Your task to perform on an android device: toggle improve location accuracy Image 0: 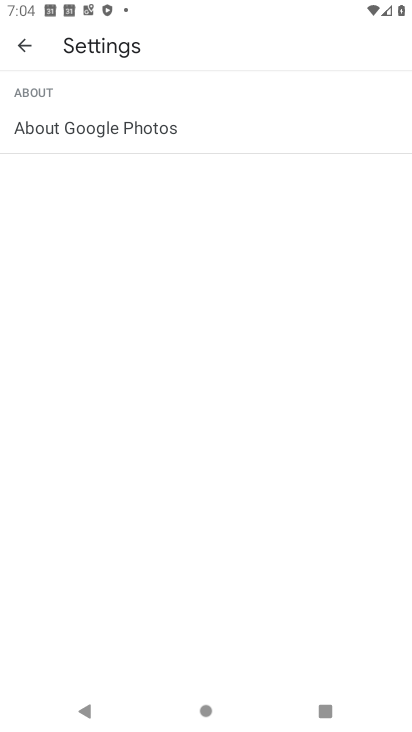
Step 0: press home button
Your task to perform on an android device: toggle improve location accuracy Image 1: 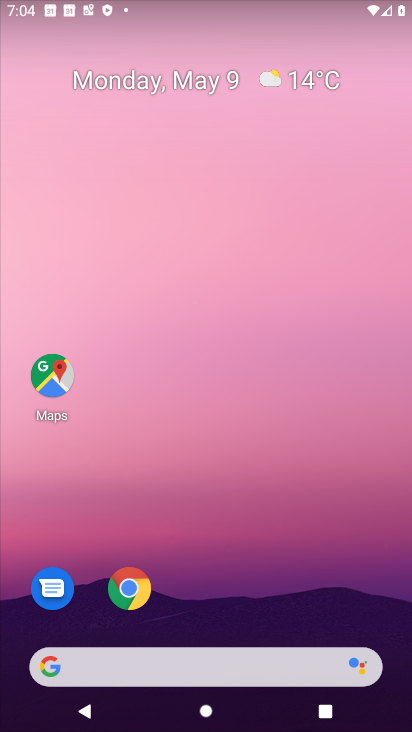
Step 1: drag from (314, 604) to (249, 52)
Your task to perform on an android device: toggle improve location accuracy Image 2: 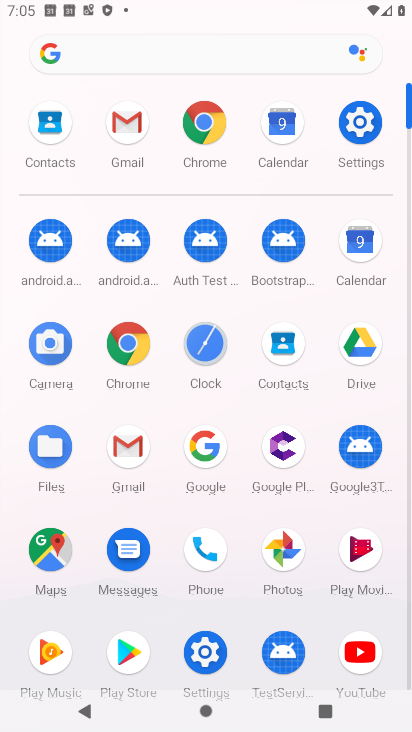
Step 2: click (217, 647)
Your task to perform on an android device: toggle improve location accuracy Image 3: 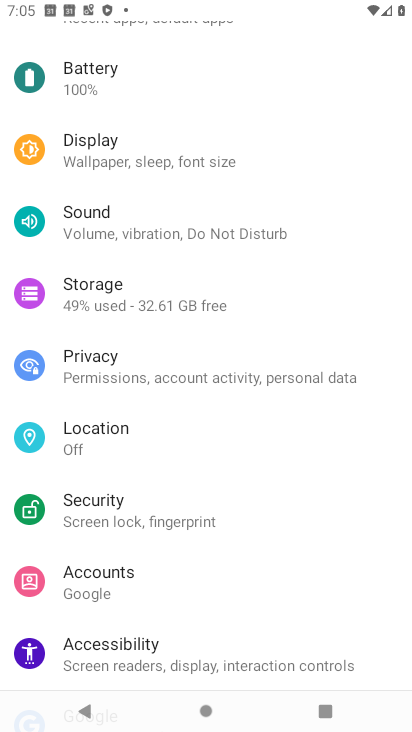
Step 3: click (141, 453)
Your task to perform on an android device: toggle improve location accuracy Image 4: 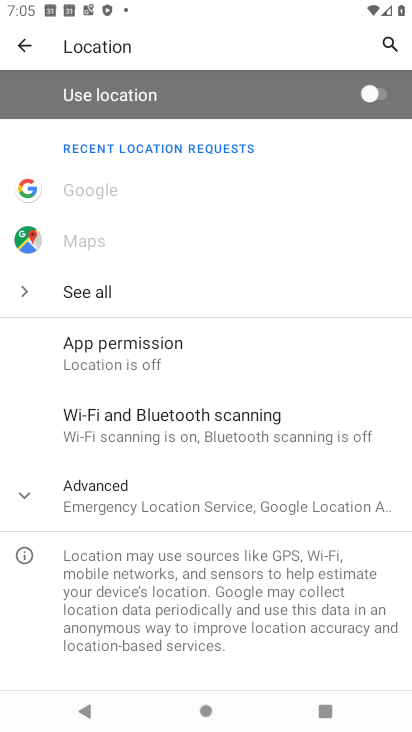
Step 4: click (141, 522)
Your task to perform on an android device: toggle improve location accuracy Image 5: 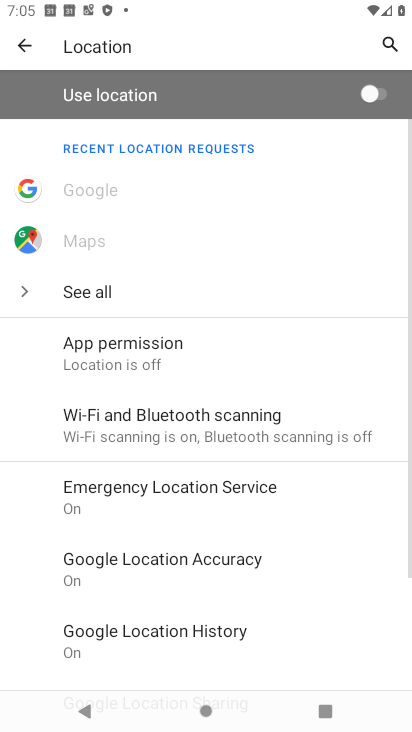
Step 5: click (178, 581)
Your task to perform on an android device: toggle improve location accuracy Image 6: 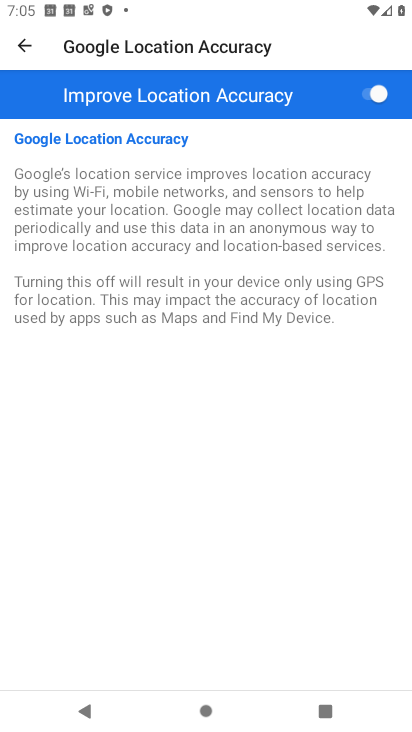
Step 6: click (366, 89)
Your task to perform on an android device: toggle improve location accuracy Image 7: 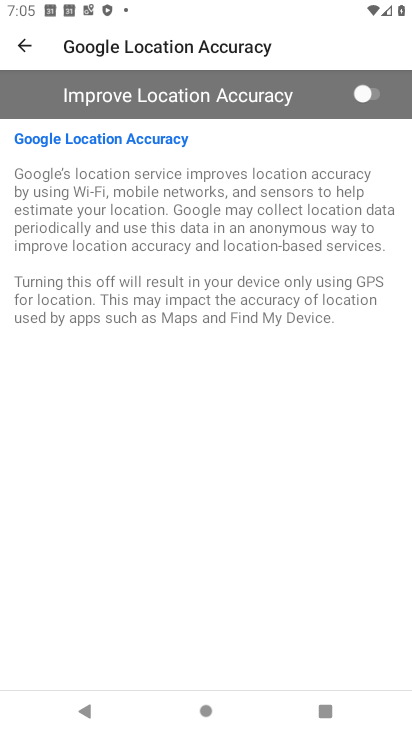
Step 7: task complete